Your task to perform on an android device: Go to display settings Image 0: 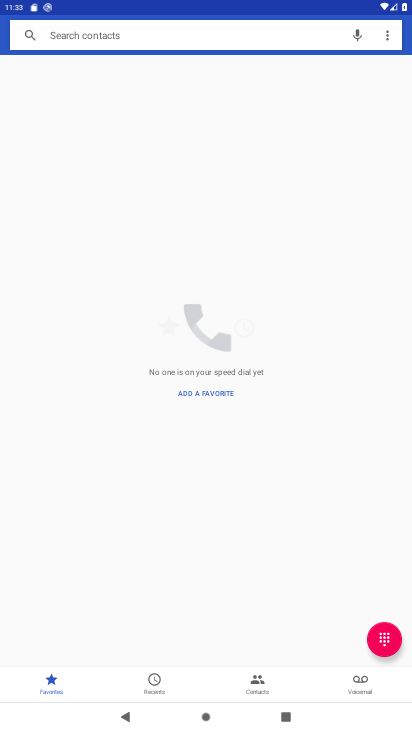
Step 0: press home button
Your task to perform on an android device: Go to display settings Image 1: 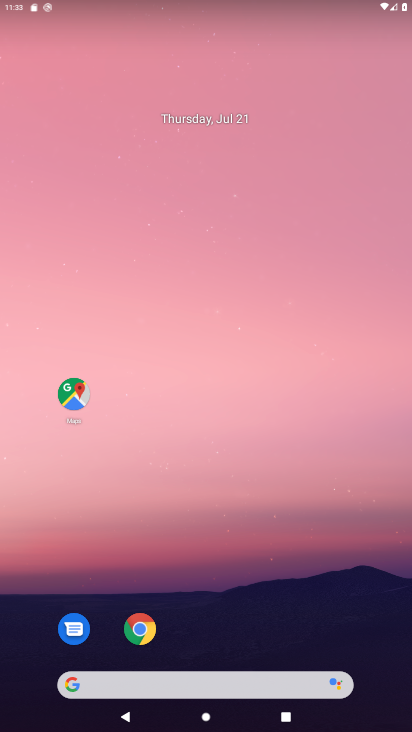
Step 1: drag from (255, 562) to (235, 0)
Your task to perform on an android device: Go to display settings Image 2: 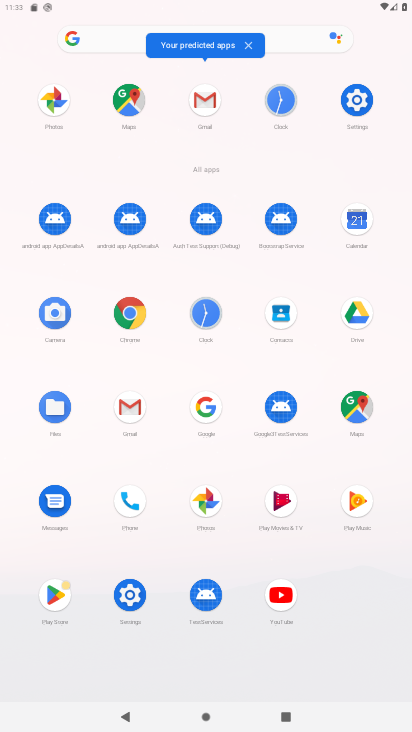
Step 2: click (125, 606)
Your task to perform on an android device: Go to display settings Image 3: 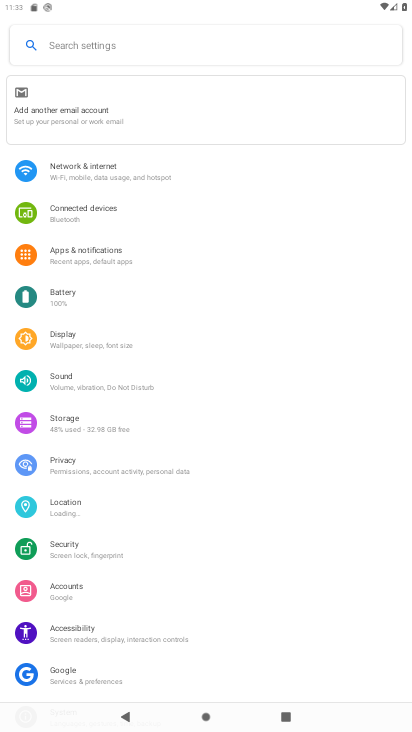
Step 3: click (110, 339)
Your task to perform on an android device: Go to display settings Image 4: 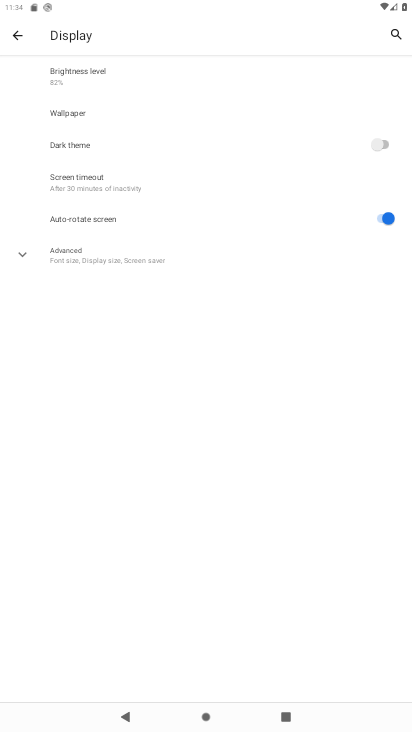
Step 4: task complete